Your task to perform on an android device: What's on my calendar tomorrow? Image 0: 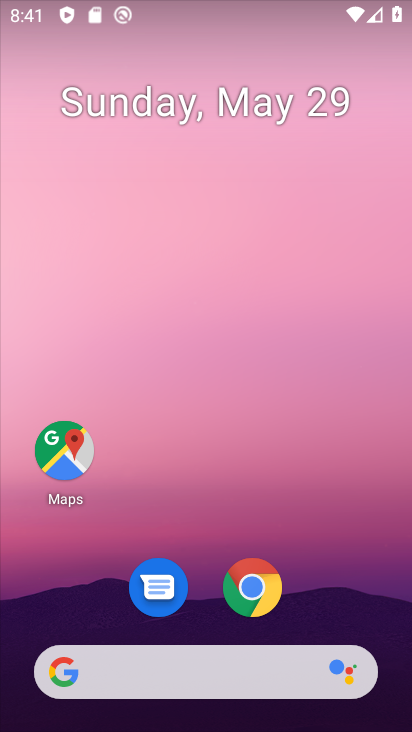
Step 0: click (212, 660)
Your task to perform on an android device: What's on my calendar tomorrow? Image 1: 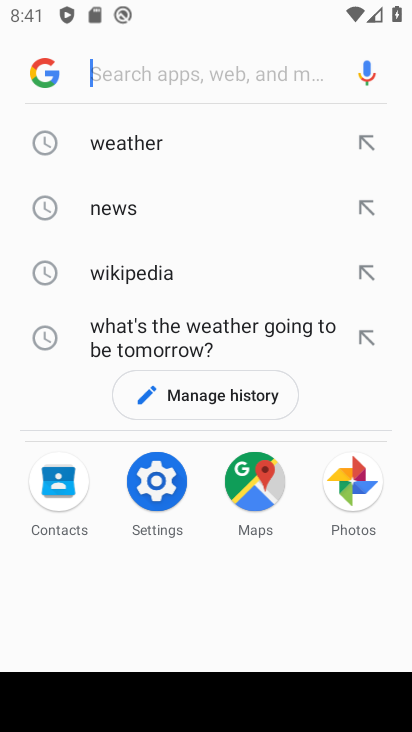
Step 1: press back button
Your task to perform on an android device: What's on my calendar tomorrow? Image 2: 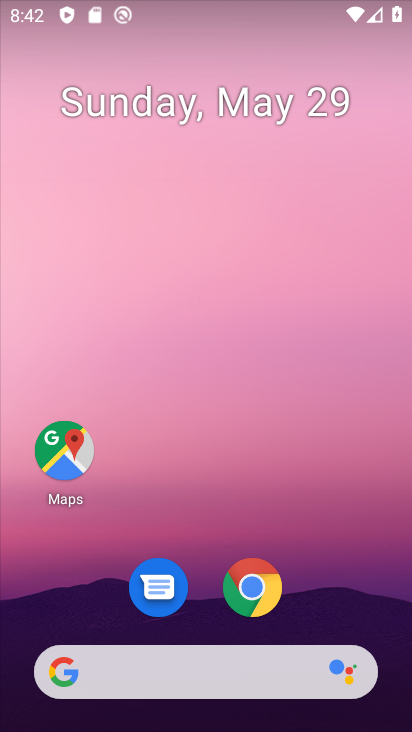
Step 2: drag from (190, 518) to (264, 3)
Your task to perform on an android device: What's on my calendar tomorrow? Image 3: 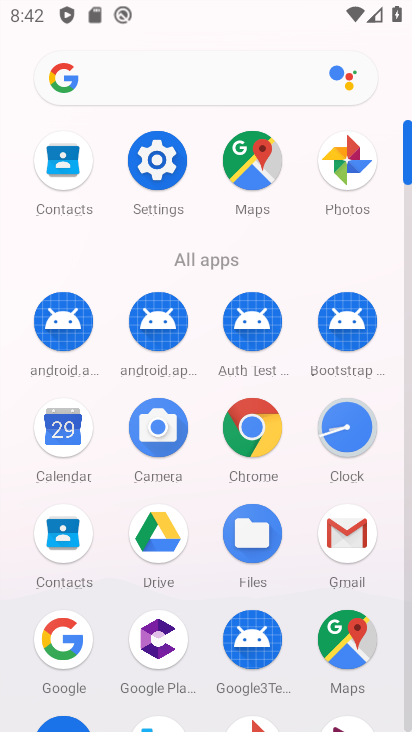
Step 3: click (63, 435)
Your task to perform on an android device: What's on my calendar tomorrow? Image 4: 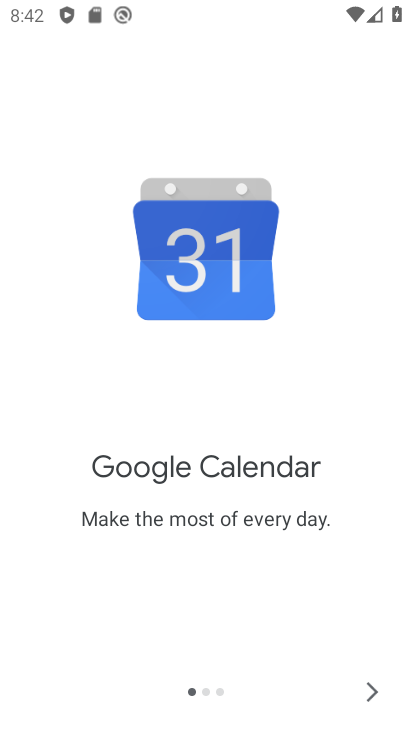
Step 4: click (378, 695)
Your task to perform on an android device: What's on my calendar tomorrow? Image 5: 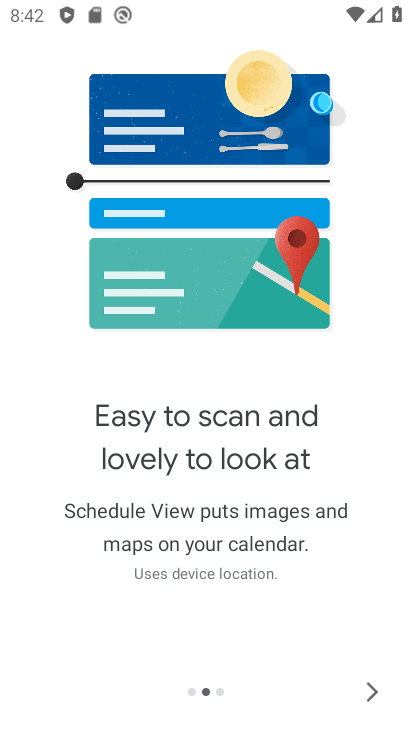
Step 5: click (372, 689)
Your task to perform on an android device: What's on my calendar tomorrow? Image 6: 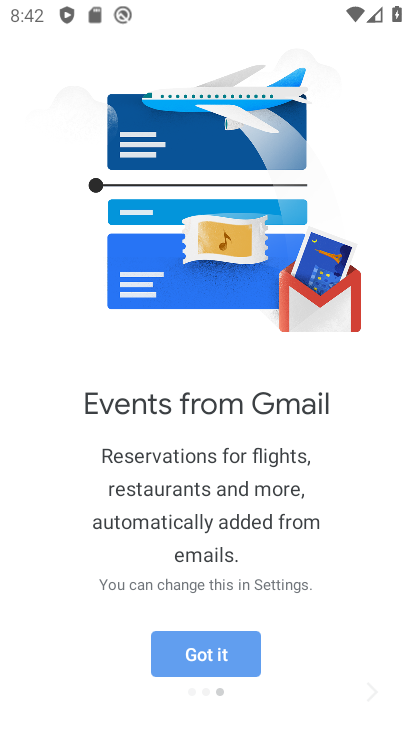
Step 6: click (372, 689)
Your task to perform on an android device: What's on my calendar tomorrow? Image 7: 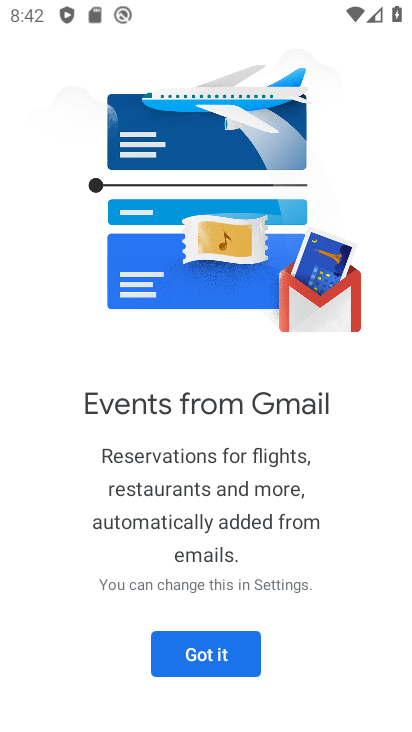
Step 7: click (174, 655)
Your task to perform on an android device: What's on my calendar tomorrow? Image 8: 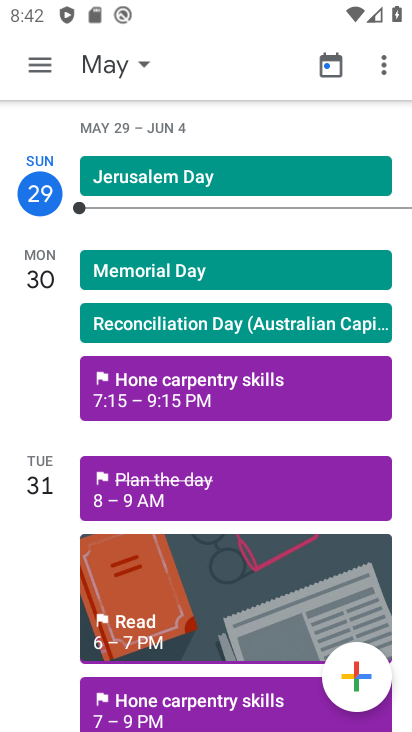
Step 8: click (152, 712)
Your task to perform on an android device: What's on my calendar tomorrow? Image 9: 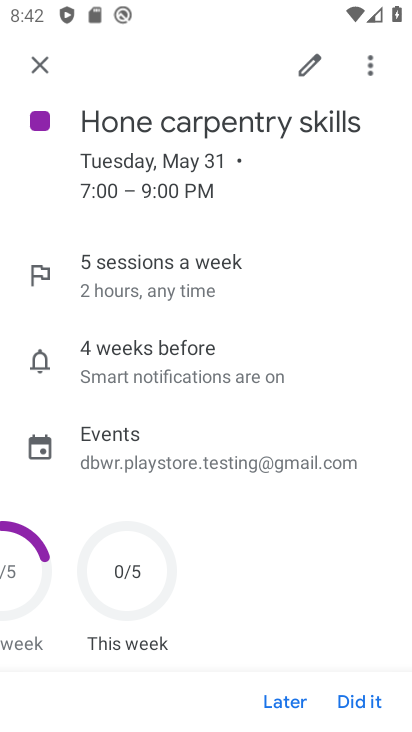
Step 9: task complete